Your task to perform on an android device: What's on my calendar today? Image 0: 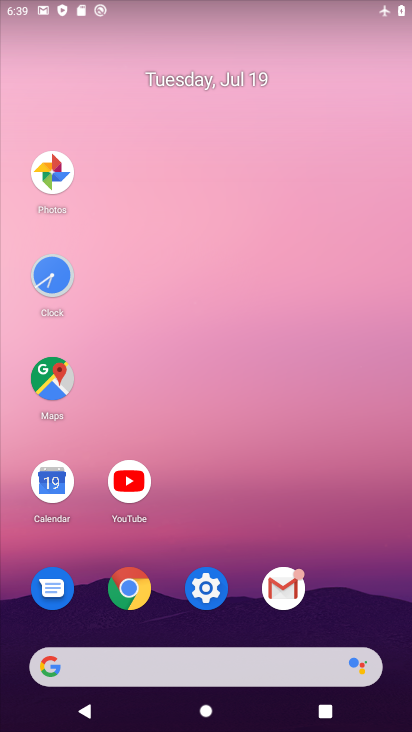
Step 0: click (139, 587)
Your task to perform on an android device: What's on my calendar today? Image 1: 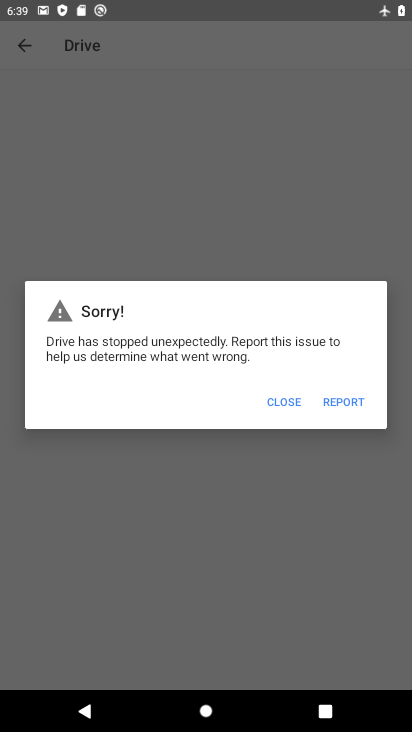
Step 1: press home button
Your task to perform on an android device: What's on my calendar today? Image 2: 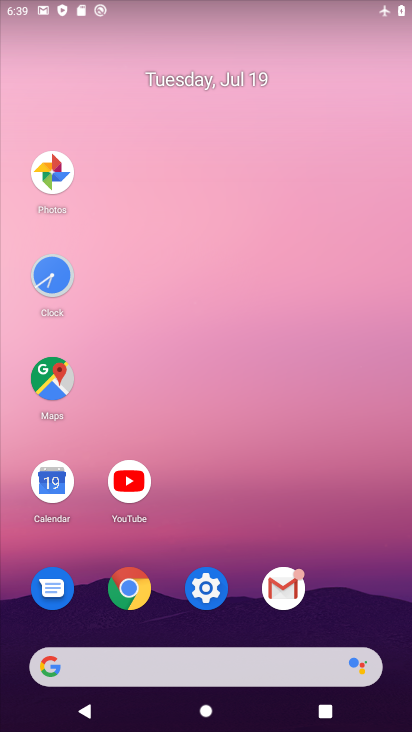
Step 2: click (55, 518)
Your task to perform on an android device: What's on my calendar today? Image 3: 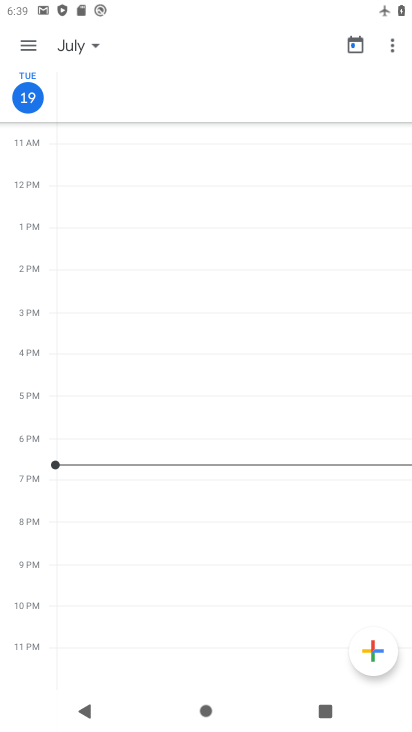
Step 3: task complete